Your task to perform on an android device: change the clock style Image 0: 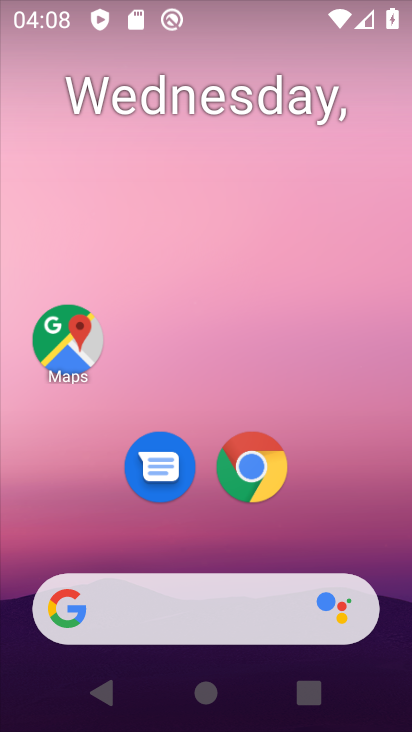
Step 0: drag from (392, 612) to (327, 267)
Your task to perform on an android device: change the clock style Image 1: 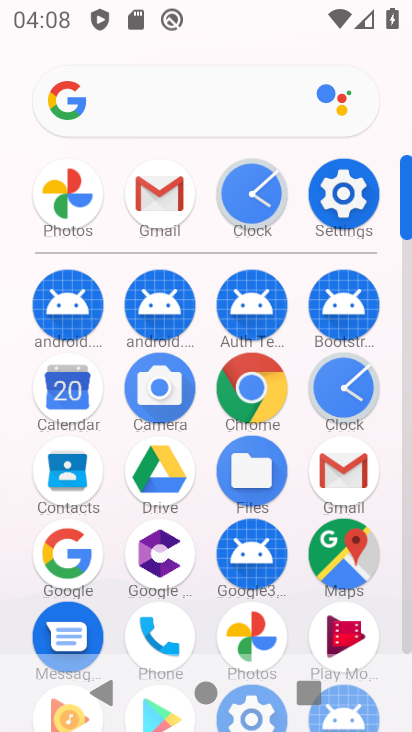
Step 1: click (404, 641)
Your task to perform on an android device: change the clock style Image 2: 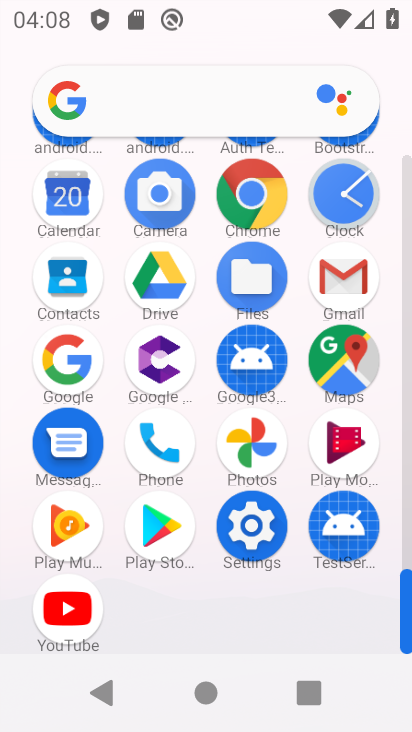
Step 2: click (343, 190)
Your task to perform on an android device: change the clock style Image 3: 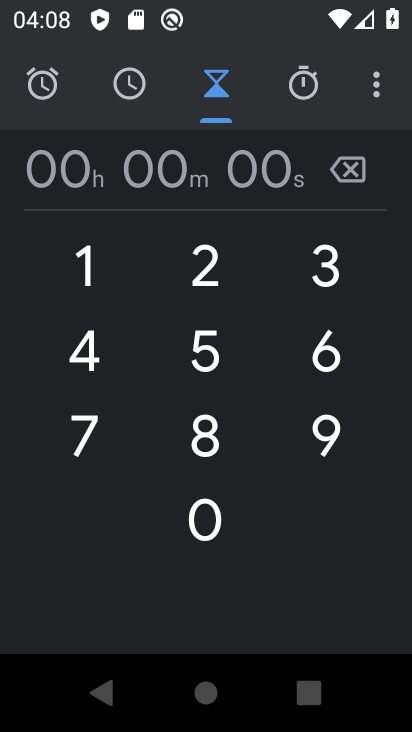
Step 3: click (372, 95)
Your task to perform on an android device: change the clock style Image 4: 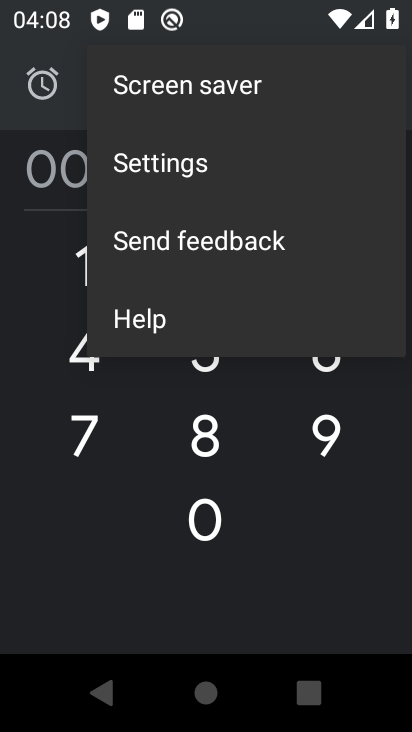
Step 4: click (178, 163)
Your task to perform on an android device: change the clock style Image 5: 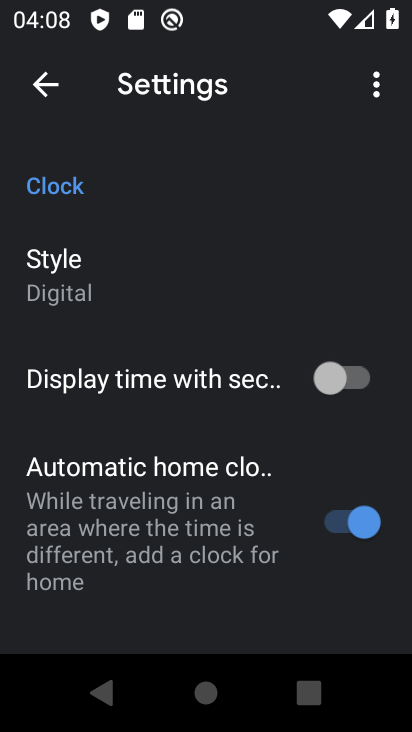
Step 5: click (57, 266)
Your task to perform on an android device: change the clock style Image 6: 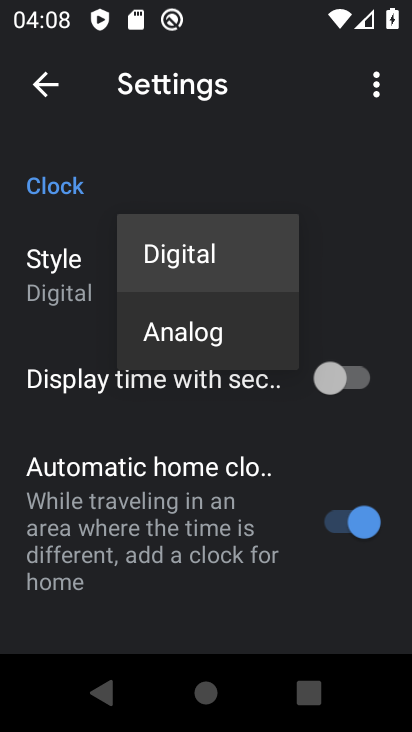
Step 6: click (177, 339)
Your task to perform on an android device: change the clock style Image 7: 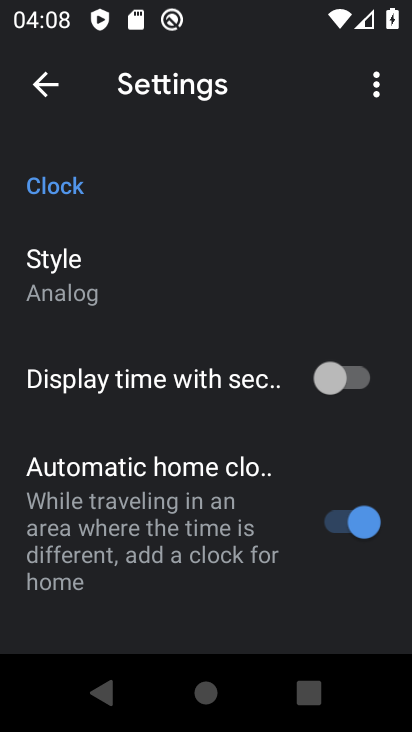
Step 7: task complete